Your task to perform on an android device: change notifications settings Image 0: 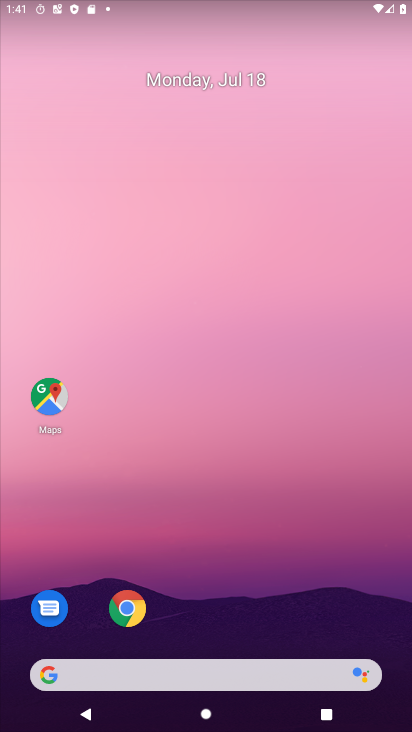
Step 0: drag from (235, 665) to (229, 311)
Your task to perform on an android device: change notifications settings Image 1: 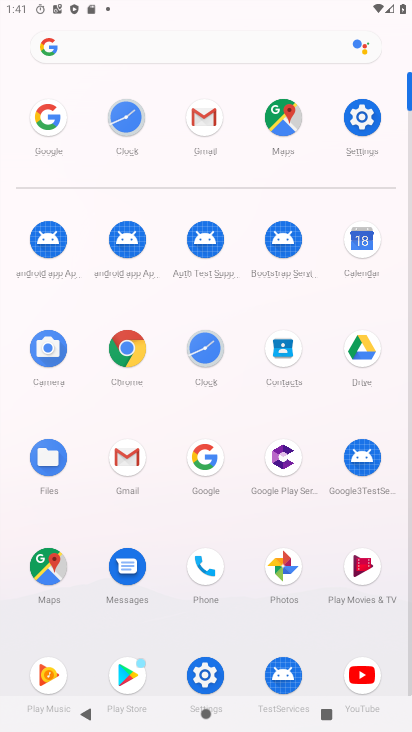
Step 1: click (360, 123)
Your task to perform on an android device: change notifications settings Image 2: 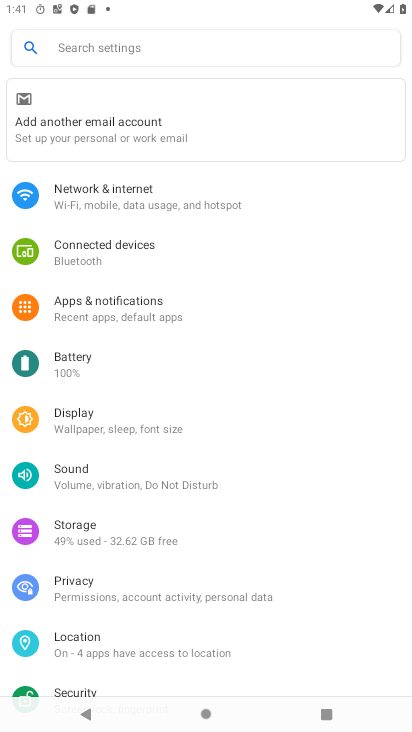
Step 2: click (128, 298)
Your task to perform on an android device: change notifications settings Image 3: 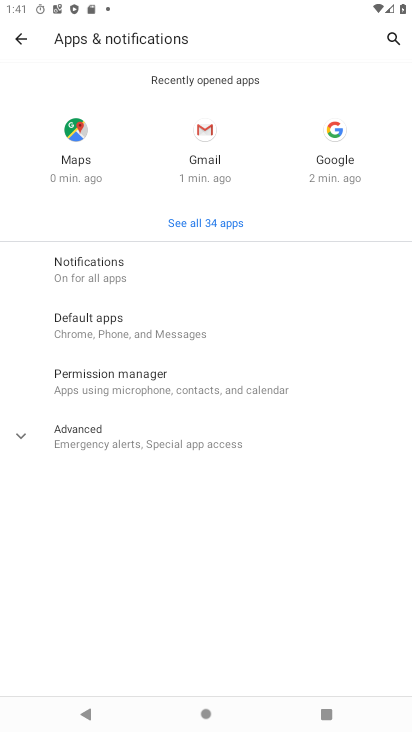
Step 3: click (68, 267)
Your task to perform on an android device: change notifications settings Image 4: 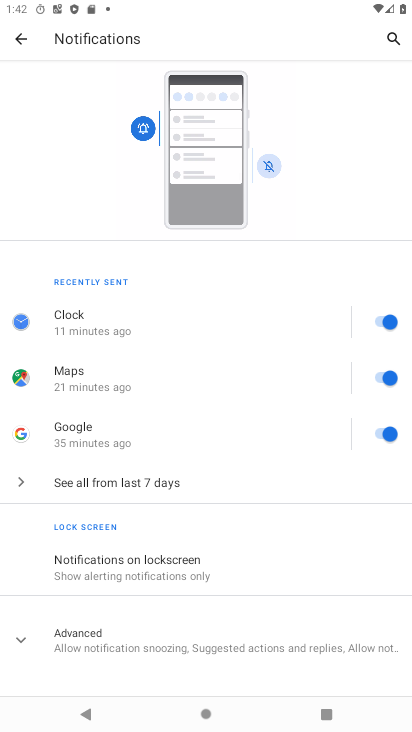
Step 4: click (123, 641)
Your task to perform on an android device: change notifications settings Image 5: 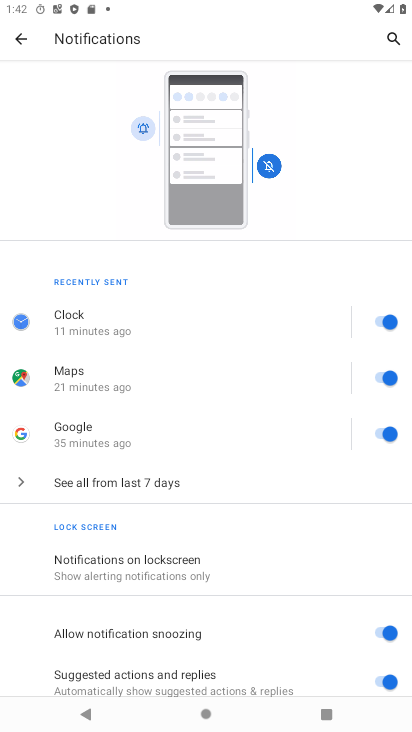
Step 5: drag from (318, 617) to (310, 386)
Your task to perform on an android device: change notifications settings Image 6: 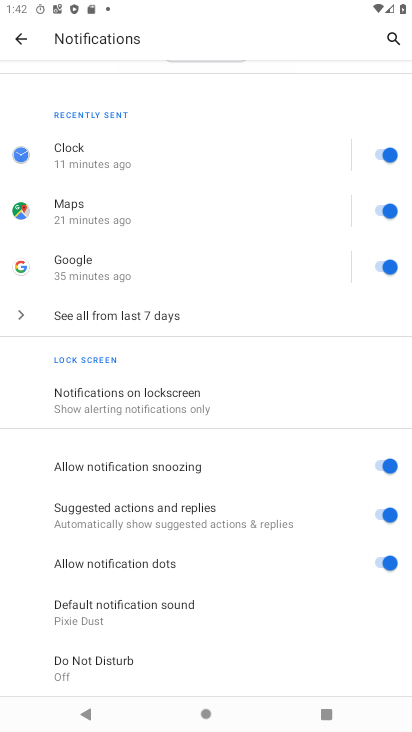
Step 6: click (383, 512)
Your task to perform on an android device: change notifications settings Image 7: 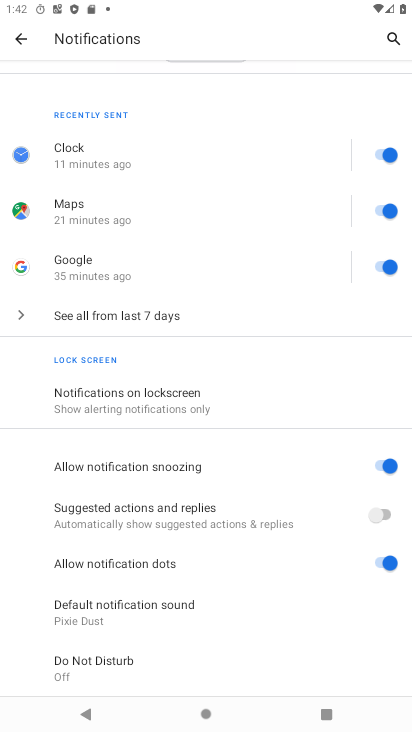
Step 7: task complete